Your task to perform on an android device: check google app version Image 0: 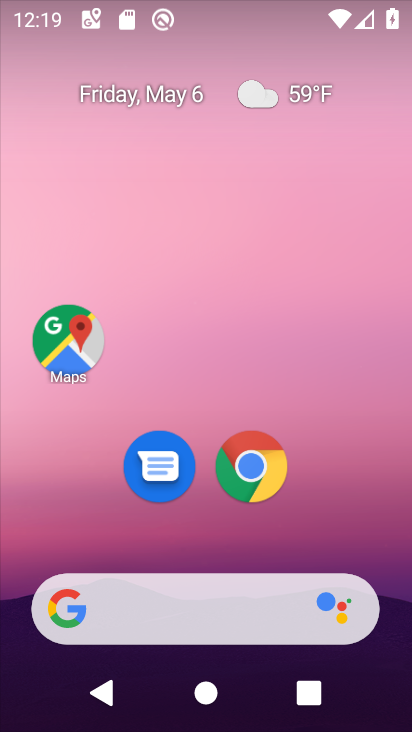
Step 0: drag from (372, 529) to (277, 72)
Your task to perform on an android device: check google app version Image 1: 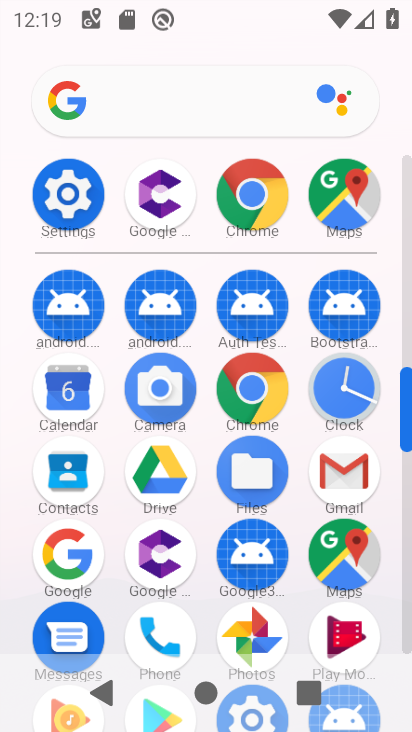
Step 1: click (241, 215)
Your task to perform on an android device: check google app version Image 2: 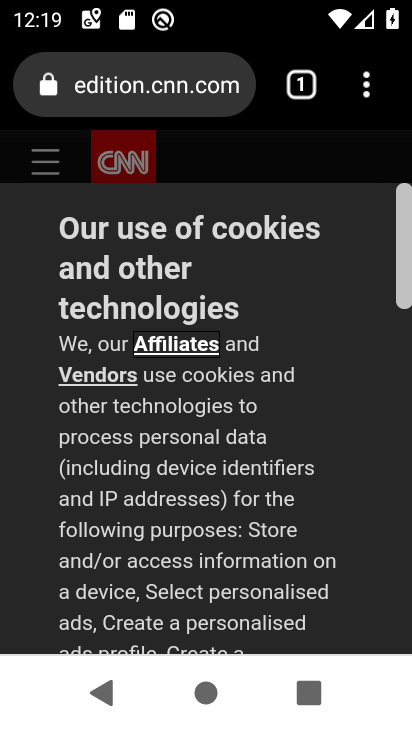
Step 2: click (364, 107)
Your task to perform on an android device: check google app version Image 3: 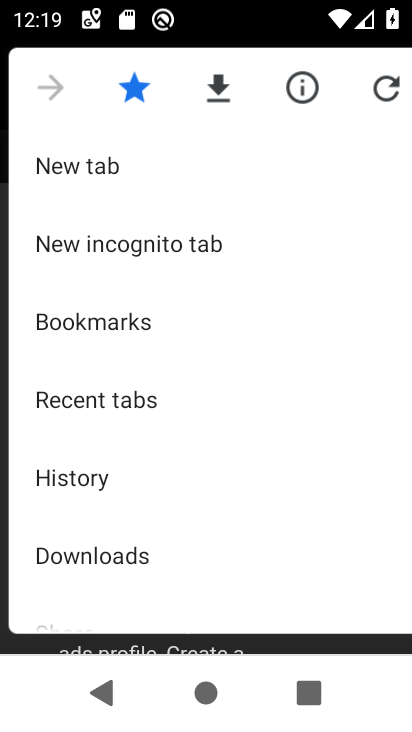
Step 3: drag from (294, 578) to (295, 90)
Your task to perform on an android device: check google app version Image 4: 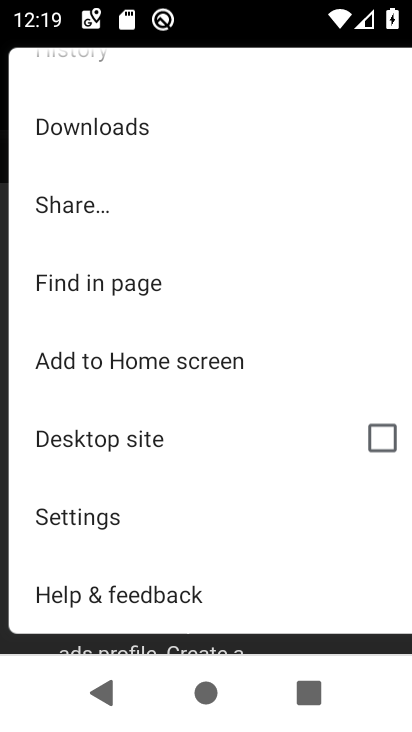
Step 4: click (249, 593)
Your task to perform on an android device: check google app version Image 5: 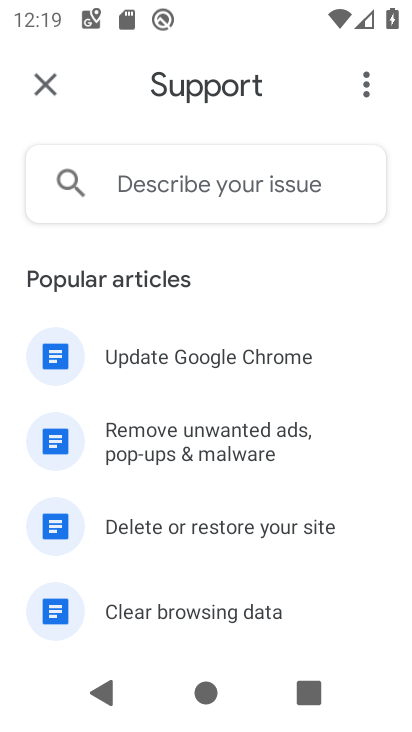
Step 5: click (372, 93)
Your task to perform on an android device: check google app version Image 6: 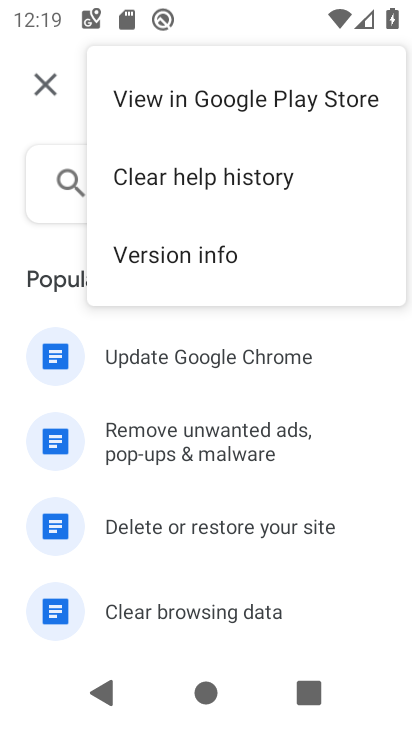
Step 6: click (307, 264)
Your task to perform on an android device: check google app version Image 7: 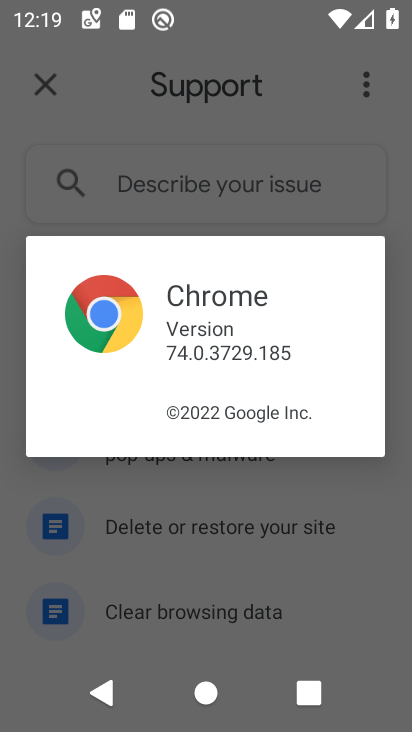
Step 7: task complete